Your task to perform on an android device: Open ESPN.com Image 0: 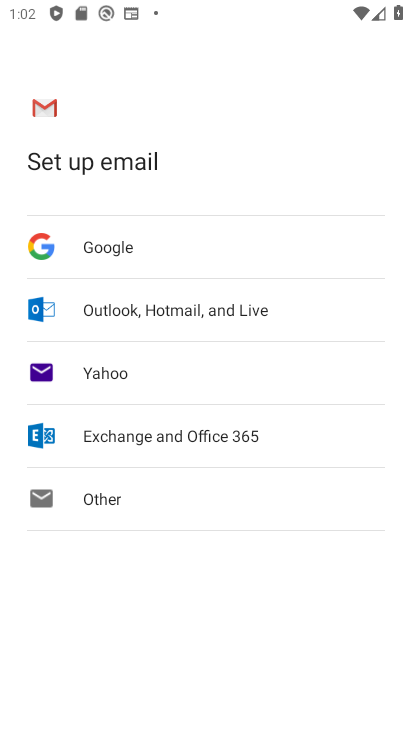
Step 0: press home button
Your task to perform on an android device: Open ESPN.com Image 1: 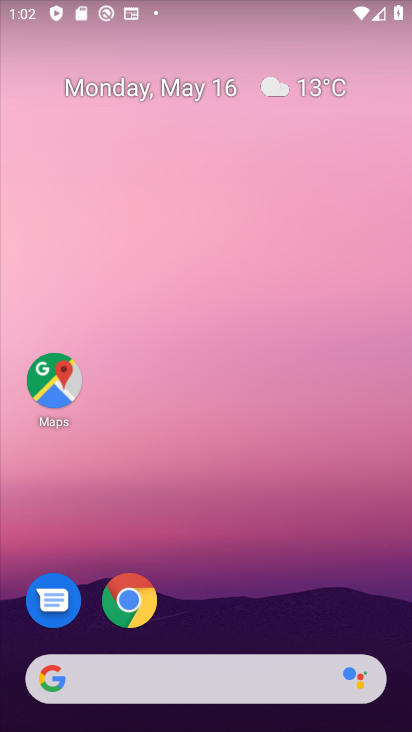
Step 1: click (141, 612)
Your task to perform on an android device: Open ESPN.com Image 2: 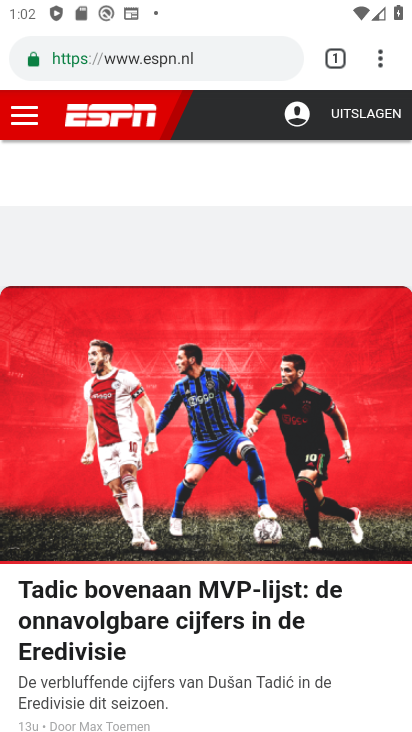
Step 2: task complete